Your task to perform on an android device: toggle translation in the chrome app Image 0: 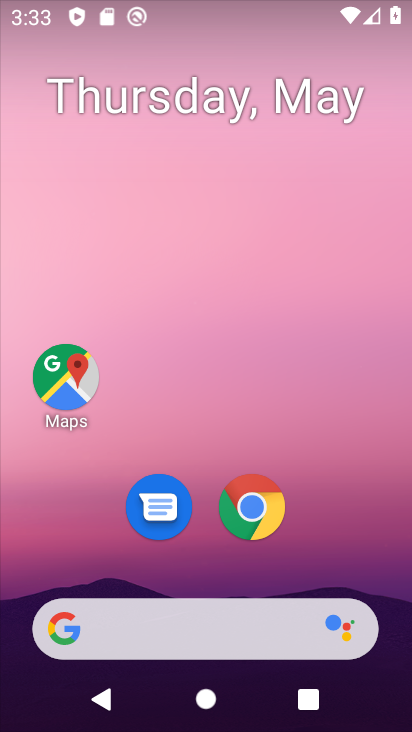
Step 0: click (247, 509)
Your task to perform on an android device: toggle translation in the chrome app Image 1: 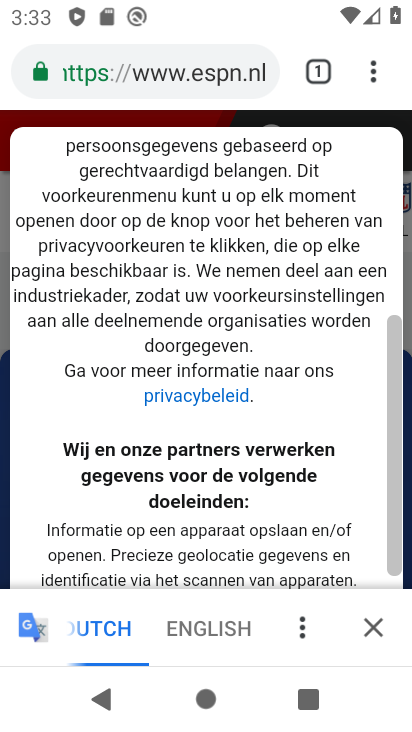
Step 1: click (362, 74)
Your task to perform on an android device: toggle translation in the chrome app Image 2: 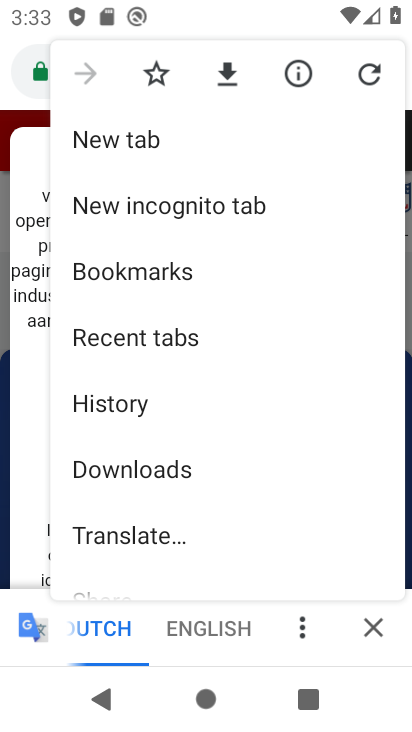
Step 2: drag from (142, 482) to (129, 250)
Your task to perform on an android device: toggle translation in the chrome app Image 3: 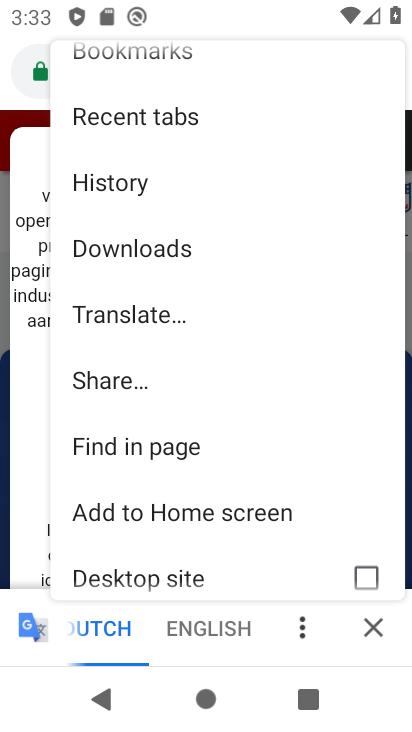
Step 3: drag from (107, 567) to (136, 329)
Your task to perform on an android device: toggle translation in the chrome app Image 4: 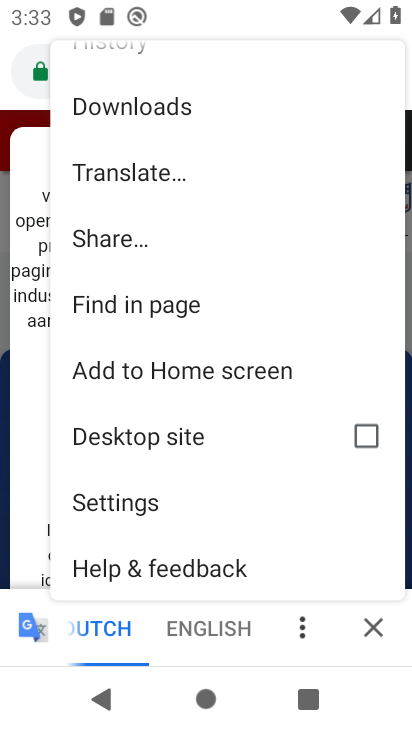
Step 4: click (156, 503)
Your task to perform on an android device: toggle translation in the chrome app Image 5: 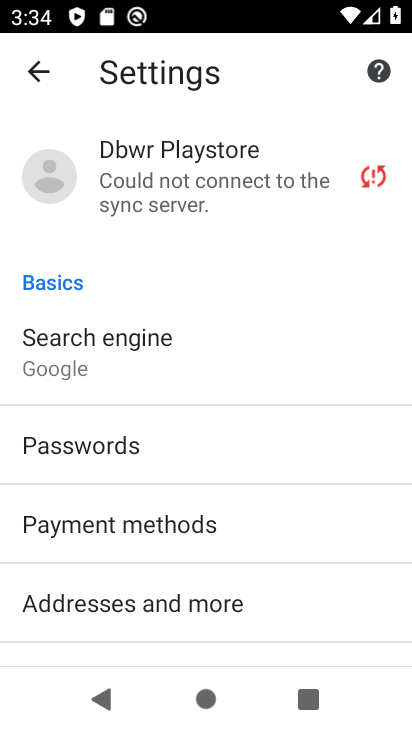
Step 5: drag from (200, 589) to (212, 319)
Your task to perform on an android device: toggle translation in the chrome app Image 6: 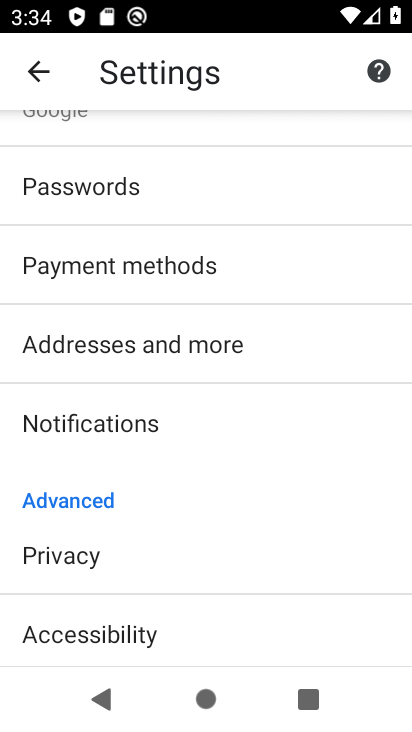
Step 6: drag from (185, 592) to (146, 337)
Your task to perform on an android device: toggle translation in the chrome app Image 7: 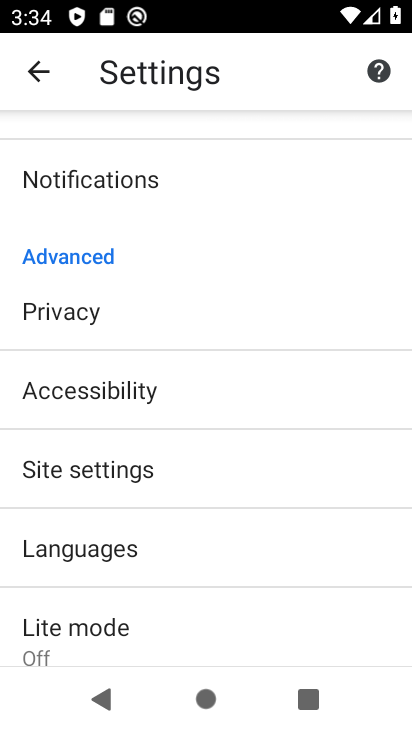
Step 7: click (139, 553)
Your task to perform on an android device: toggle translation in the chrome app Image 8: 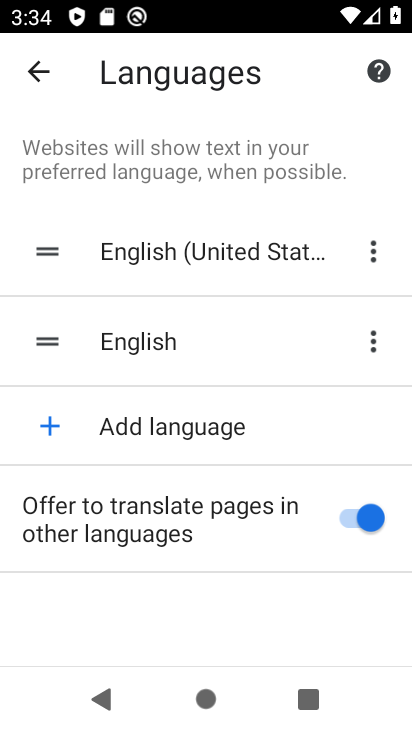
Step 8: click (362, 510)
Your task to perform on an android device: toggle translation in the chrome app Image 9: 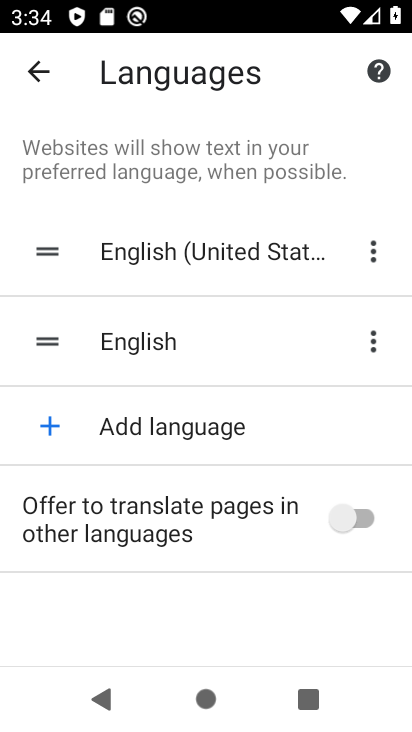
Step 9: task complete